Your task to perform on an android device: Open Google Chrome and click the shortcut for Amazon.com Image 0: 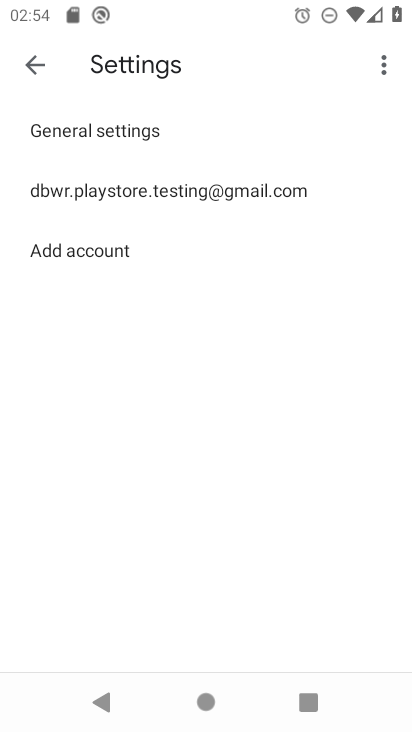
Step 0: press home button
Your task to perform on an android device: Open Google Chrome and click the shortcut for Amazon.com Image 1: 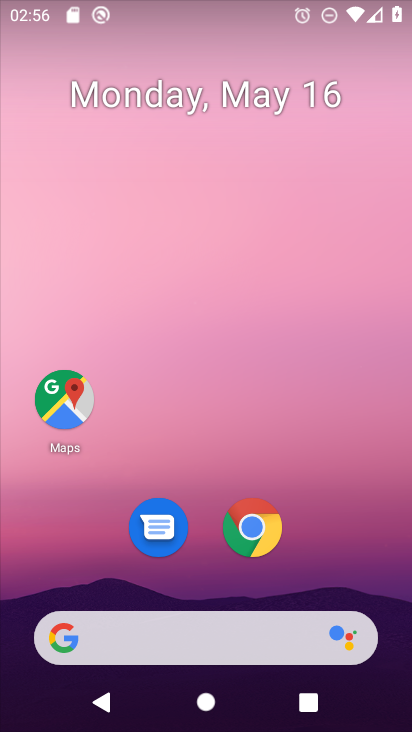
Step 1: click (272, 553)
Your task to perform on an android device: Open Google Chrome and click the shortcut for Amazon.com Image 2: 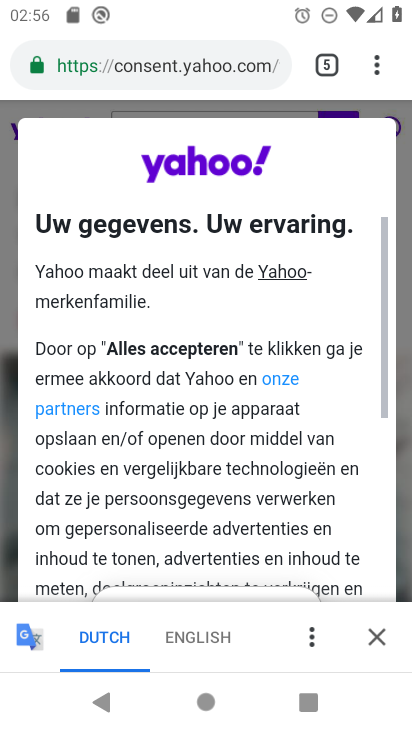
Step 2: click (373, 69)
Your task to perform on an android device: Open Google Chrome and click the shortcut for Amazon.com Image 3: 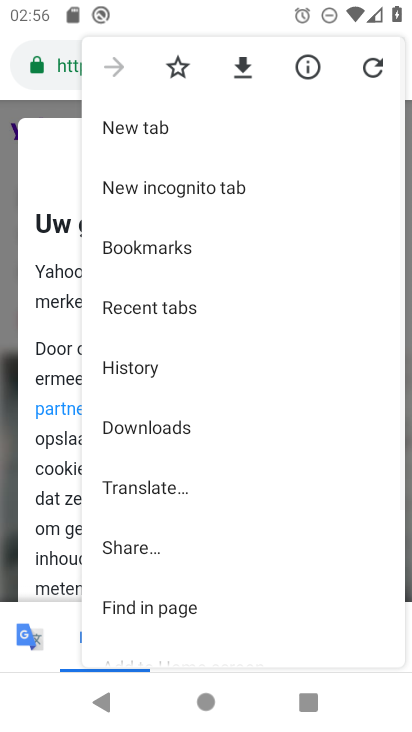
Step 3: click (138, 121)
Your task to perform on an android device: Open Google Chrome and click the shortcut for Amazon.com Image 4: 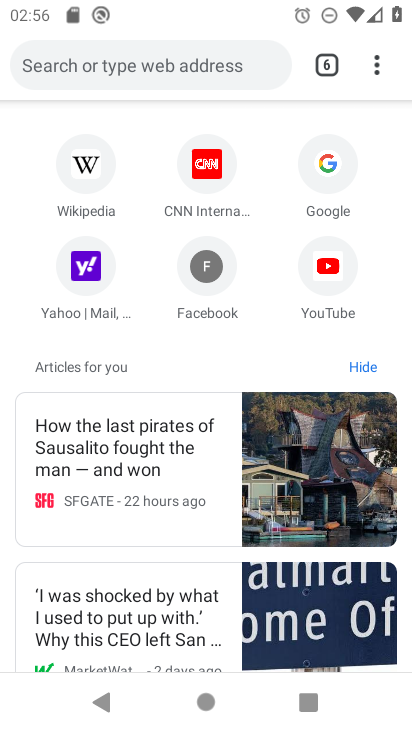
Step 4: click (169, 73)
Your task to perform on an android device: Open Google Chrome and click the shortcut for Amazon.com Image 5: 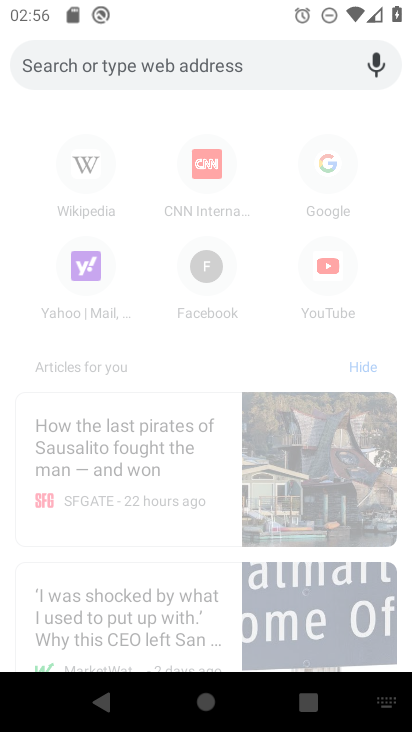
Step 5: type "amazon"
Your task to perform on an android device: Open Google Chrome and click the shortcut for Amazon.com Image 6: 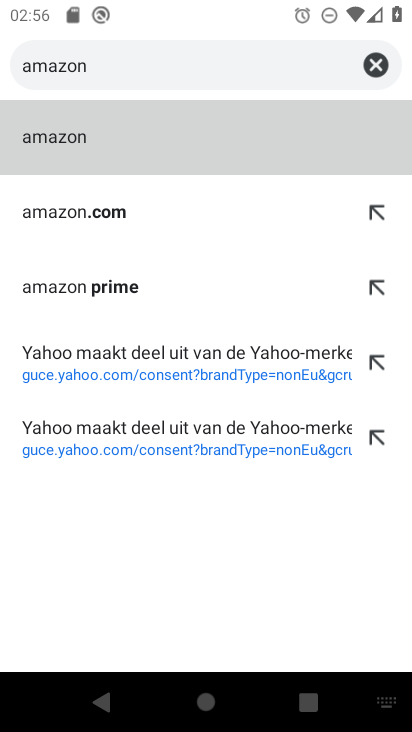
Step 6: click (195, 229)
Your task to perform on an android device: Open Google Chrome and click the shortcut for Amazon.com Image 7: 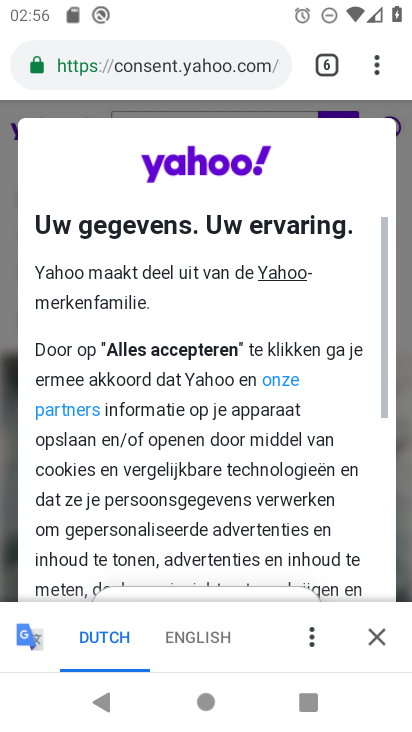
Step 7: task complete